Your task to perform on an android device: Is it going to rain this weekend? Image 0: 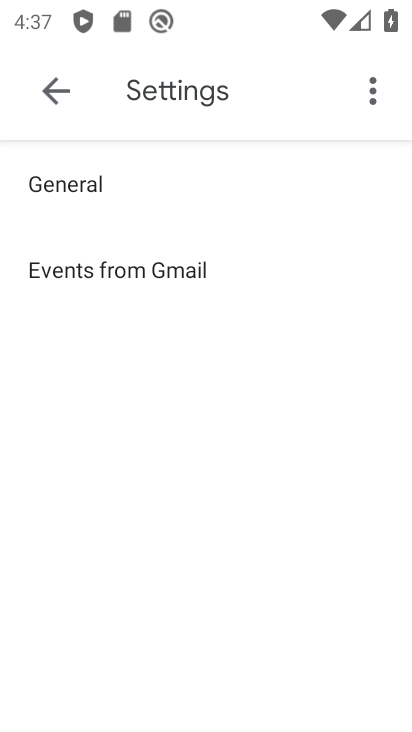
Step 0: press home button
Your task to perform on an android device: Is it going to rain this weekend? Image 1: 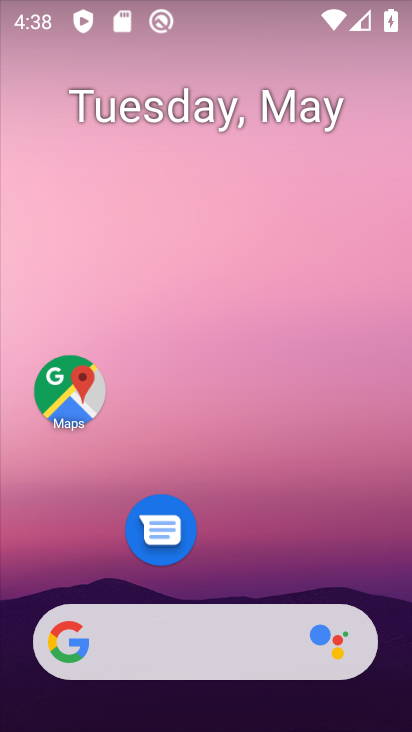
Step 1: drag from (255, 580) to (147, 205)
Your task to perform on an android device: Is it going to rain this weekend? Image 2: 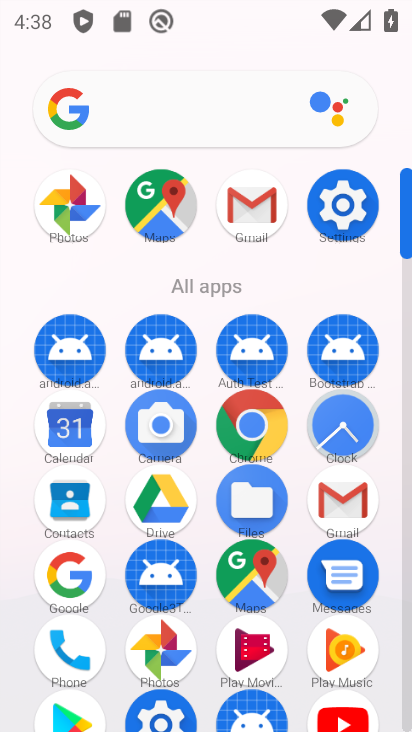
Step 2: click (200, 123)
Your task to perform on an android device: Is it going to rain this weekend? Image 3: 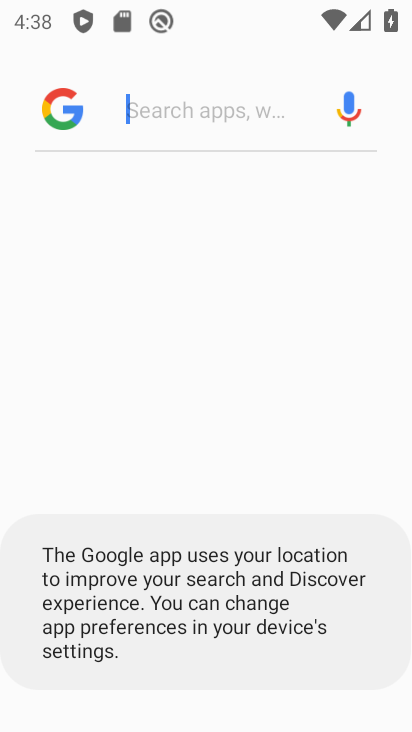
Step 3: click (200, 123)
Your task to perform on an android device: Is it going to rain this weekend? Image 4: 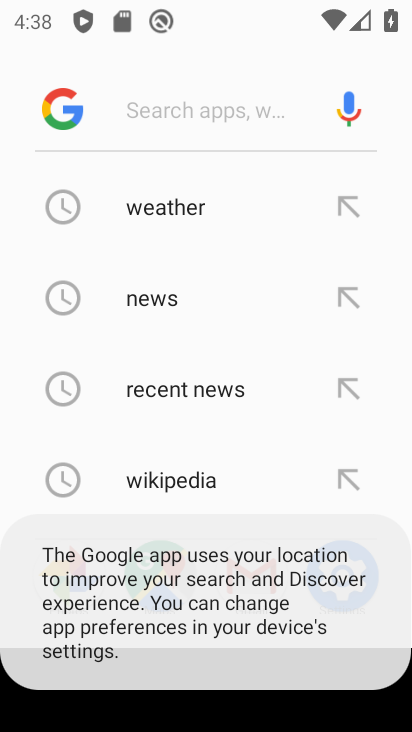
Step 4: click (181, 199)
Your task to perform on an android device: Is it going to rain this weekend? Image 5: 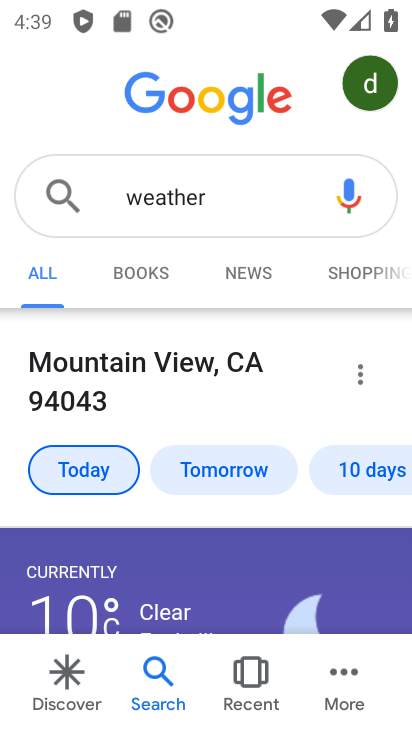
Step 5: task complete